Your task to perform on an android device: What's the weather going to be tomorrow? Image 0: 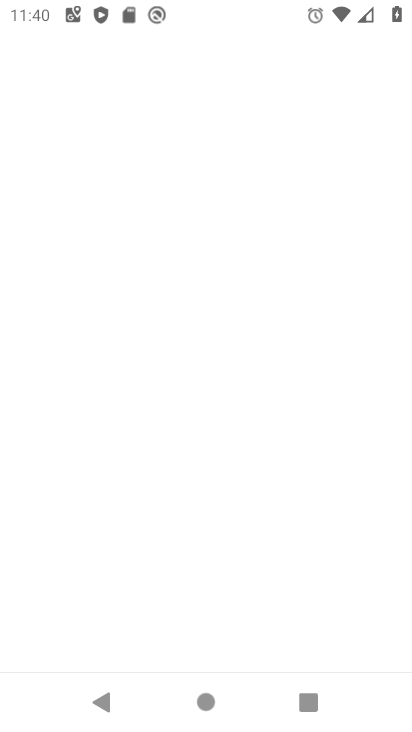
Step 0: press home button
Your task to perform on an android device: What's the weather going to be tomorrow? Image 1: 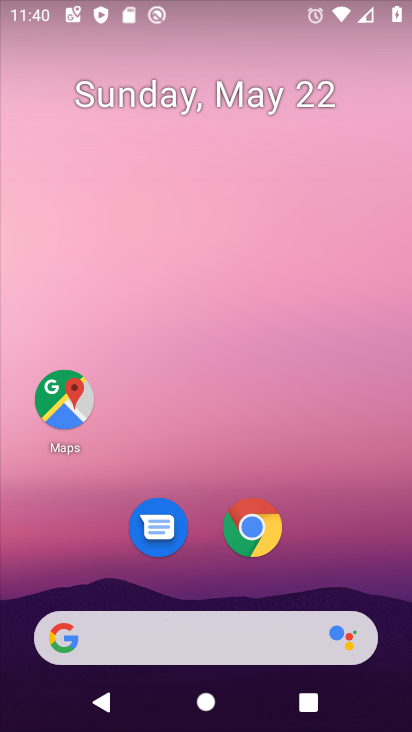
Step 1: drag from (322, 564) to (274, 331)
Your task to perform on an android device: What's the weather going to be tomorrow? Image 2: 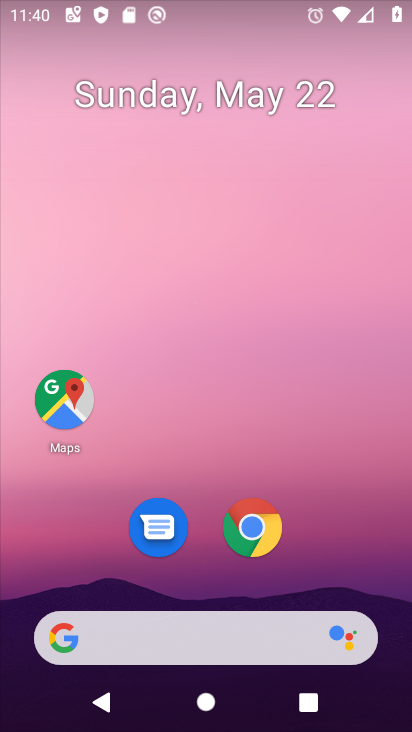
Step 2: click (274, 328)
Your task to perform on an android device: What's the weather going to be tomorrow? Image 3: 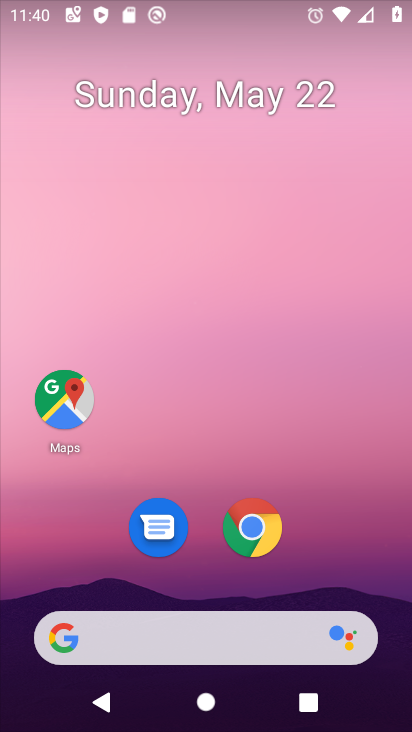
Step 3: drag from (328, 541) to (307, 73)
Your task to perform on an android device: What's the weather going to be tomorrow? Image 4: 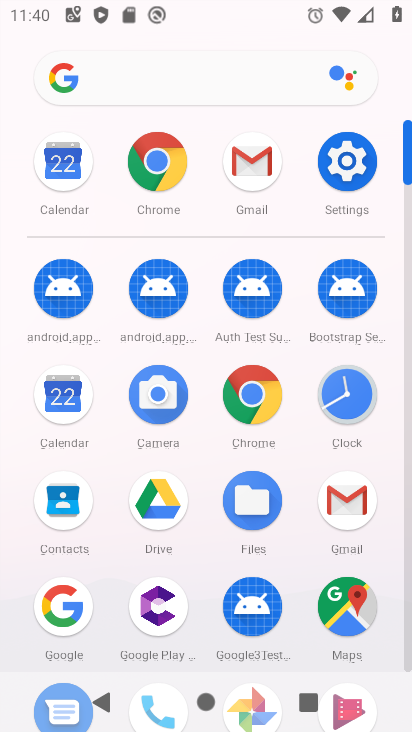
Step 4: click (231, 85)
Your task to perform on an android device: What's the weather going to be tomorrow? Image 5: 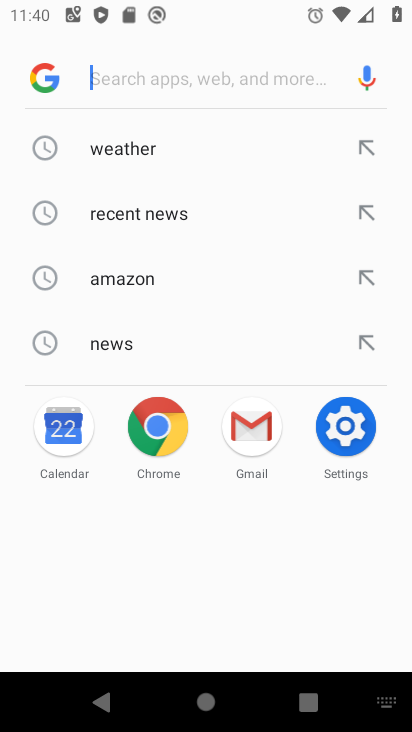
Step 5: click (142, 167)
Your task to perform on an android device: What's the weather going to be tomorrow? Image 6: 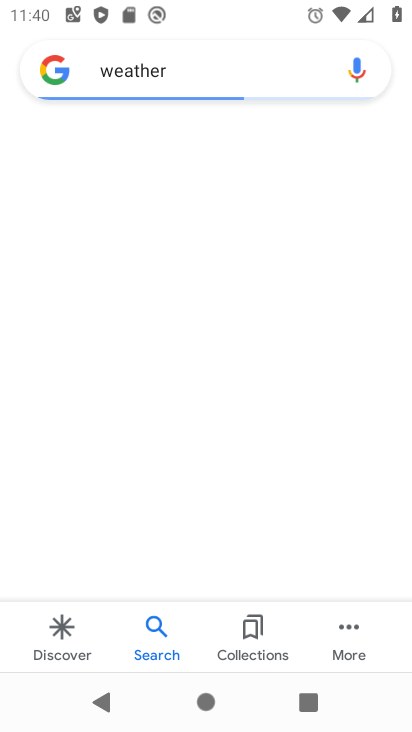
Step 6: task complete